Your task to perform on an android device: Show me productivity apps on the Play Store Image 0: 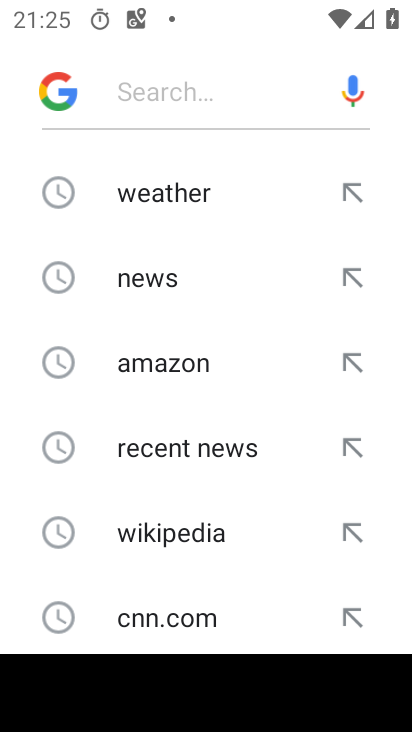
Step 0: press home button
Your task to perform on an android device: Show me productivity apps on the Play Store Image 1: 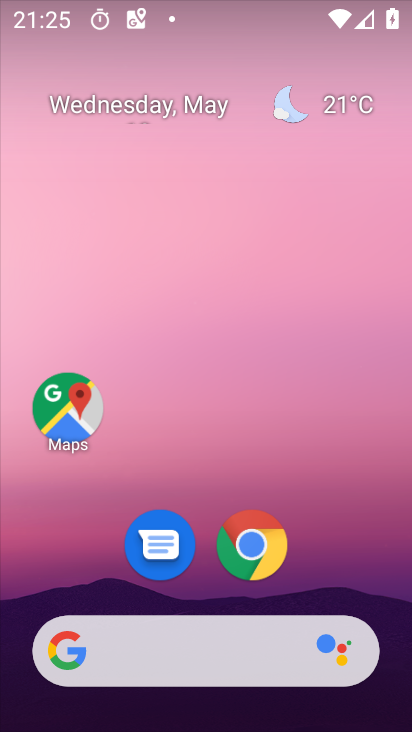
Step 1: drag from (301, 509) to (251, 4)
Your task to perform on an android device: Show me productivity apps on the Play Store Image 2: 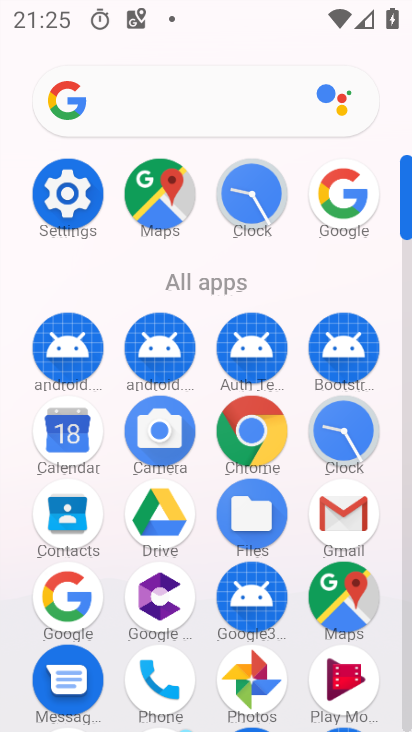
Step 2: drag from (191, 625) to (230, 252)
Your task to perform on an android device: Show me productivity apps on the Play Store Image 3: 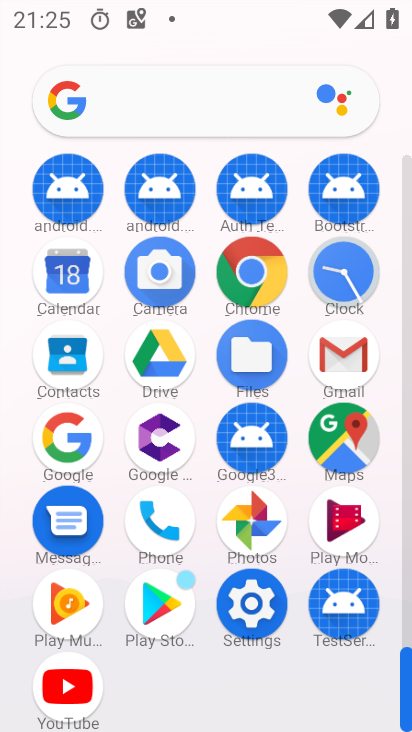
Step 3: click (171, 607)
Your task to perform on an android device: Show me productivity apps on the Play Store Image 4: 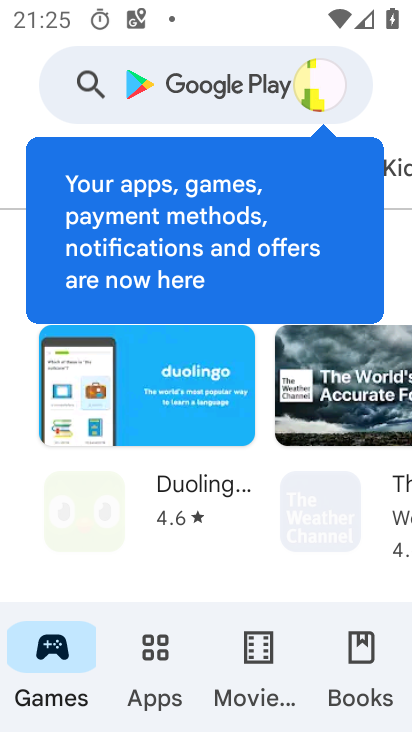
Step 4: click (158, 676)
Your task to perform on an android device: Show me productivity apps on the Play Store Image 5: 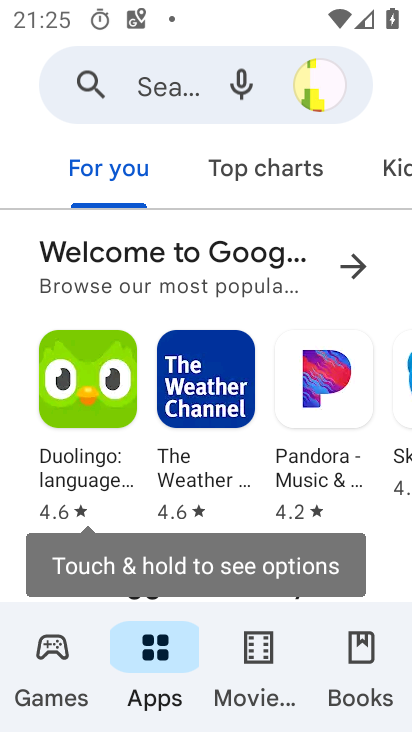
Step 5: drag from (394, 168) to (76, 183)
Your task to perform on an android device: Show me productivity apps on the Play Store Image 6: 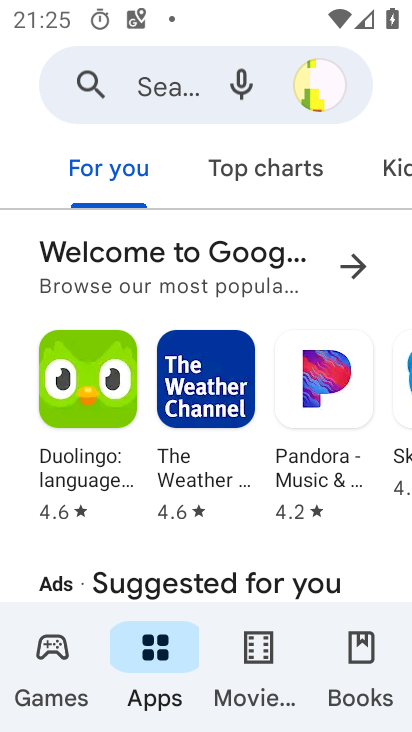
Step 6: drag from (366, 181) to (31, 209)
Your task to perform on an android device: Show me productivity apps on the Play Store Image 7: 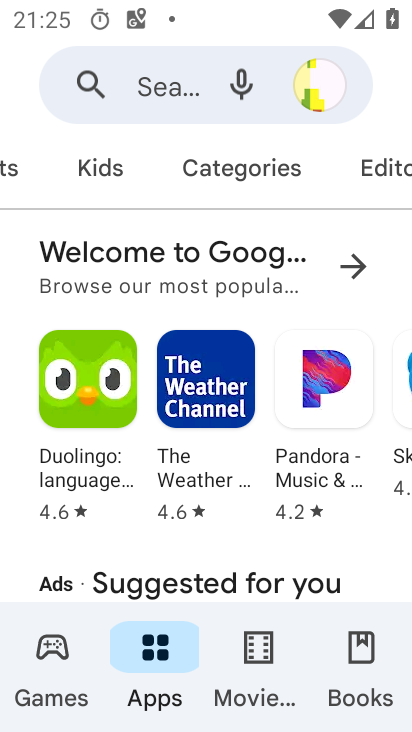
Step 7: click (230, 168)
Your task to perform on an android device: Show me productivity apps on the Play Store Image 8: 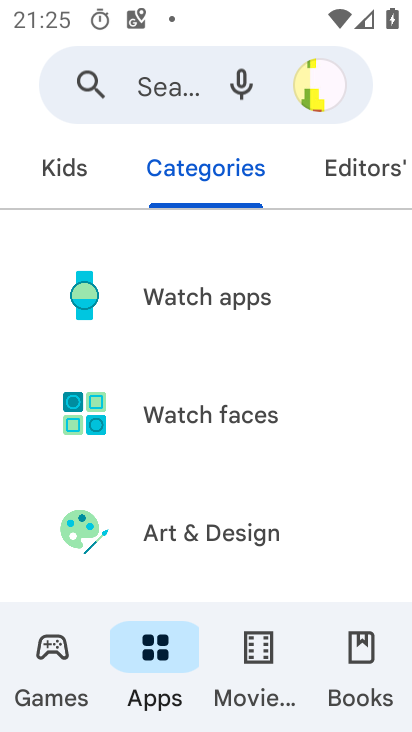
Step 8: drag from (305, 514) to (303, 233)
Your task to perform on an android device: Show me productivity apps on the Play Store Image 9: 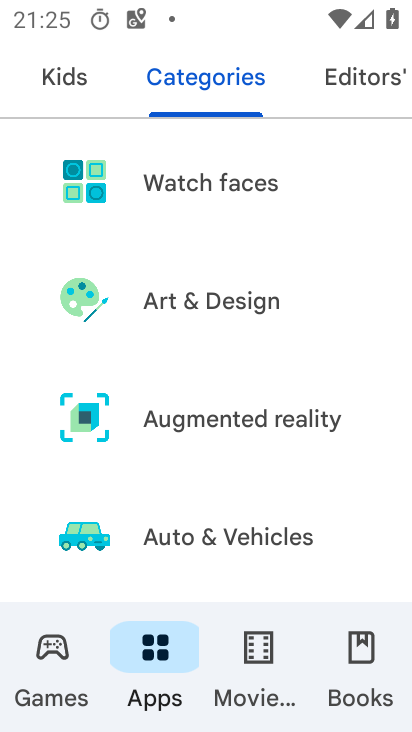
Step 9: drag from (287, 537) to (296, 247)
Your task to perform on an android device: Show me productivity apps on the Play Store Image 10: 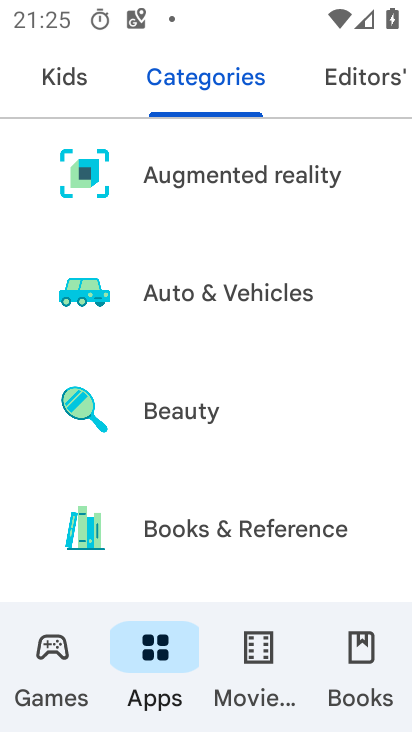
Step 10: drag from (230, 562) to (253, 267)
Your task to perform on an android device: Show me productivity apps on the Play Store Image 11: 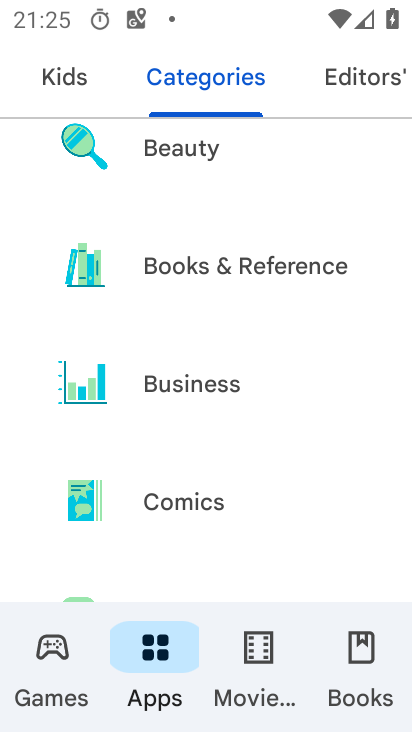
Step 11: drag from (238, 545) to (289, 269)
Your task to perform on an android device: Show me productivity apps on the Play Store Image 12: 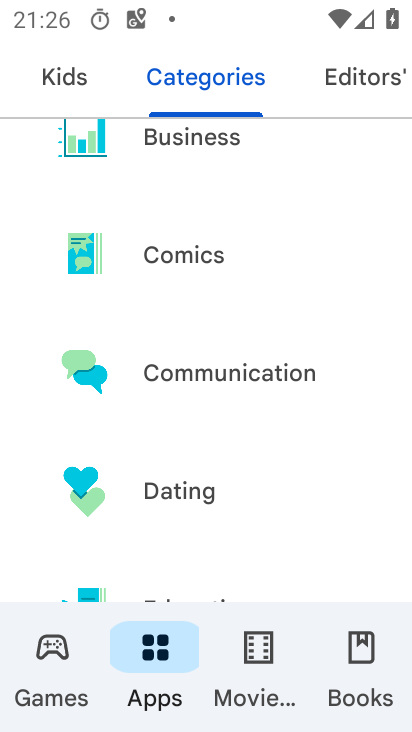
Step 12: drag from (261, 544) to (324, 224)
Your task to perform on an android device: Show me productivity apps on the Play Store Image 13: 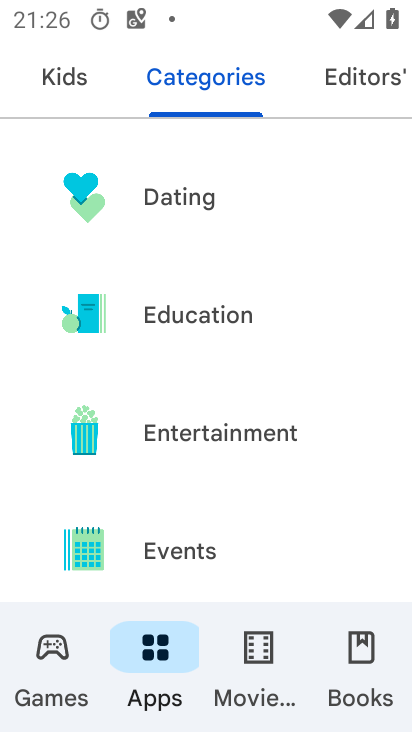
Step 13: drag from (274, 588) to (292, 362)
Your task to perform on an android device: Show me productivity apps on the Play Store Image 14: 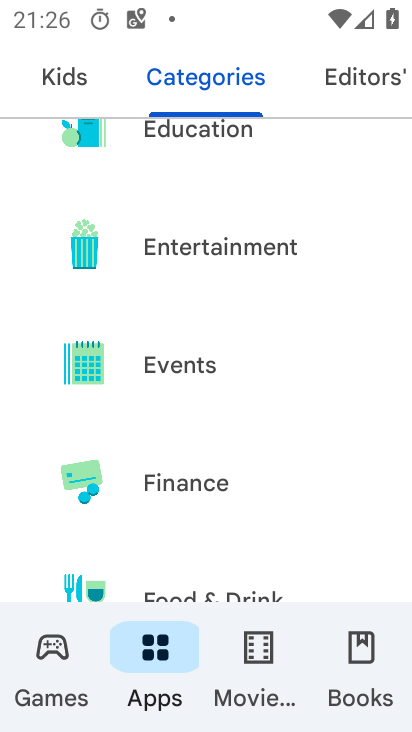
Step 14: drag from (209, 569) to (302, 294)
Your task to perform on an android device: Show me productivity apps on the Play Store Image 15: 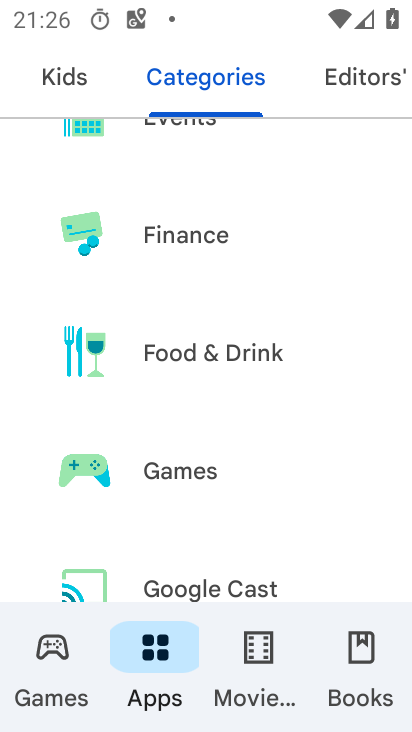
Step 15: drag from (256, 570) to (308, 281)
Your task to perform on an android device: Show me productivity apps on the Play Store Image 16: 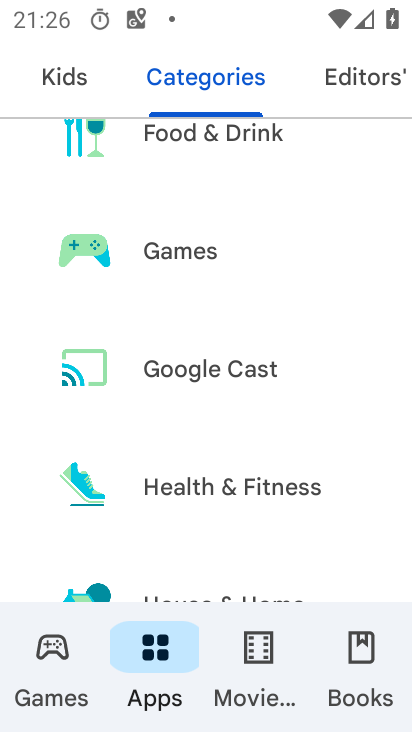
Step 16: drag from (247, 592) to (281, 347)
Your task to perform on an android device: Show me productivity apps on the Play Store Image 17: 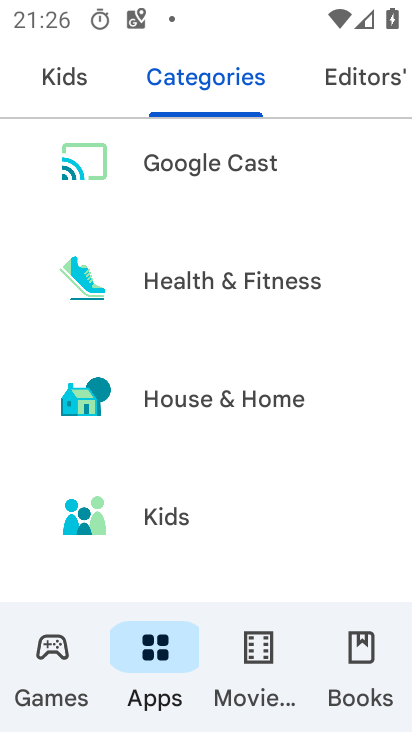
Step 17: drag from (260, 566) to (287, 338)
Your task to perform on an android device: Show me productivity apps on the Play Store Image 18: 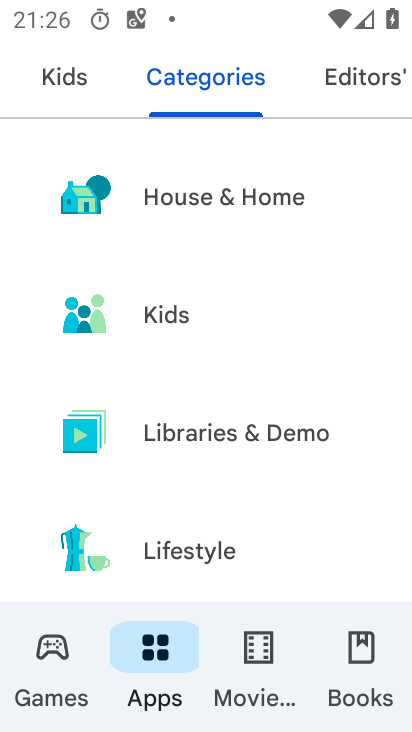
Step 18: drag from (226, 588) to (295, 390)
Your task to perform on an android device: Show me productivity apps on the Play Store Image 19: 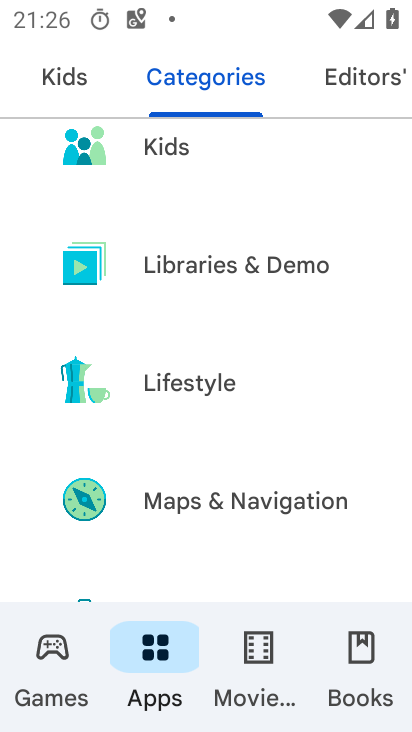
Step 19: drag from (241, 546) to (284, 354)
Your task to perform on an android device: Show me productivity apps on the Play Store Image 20: 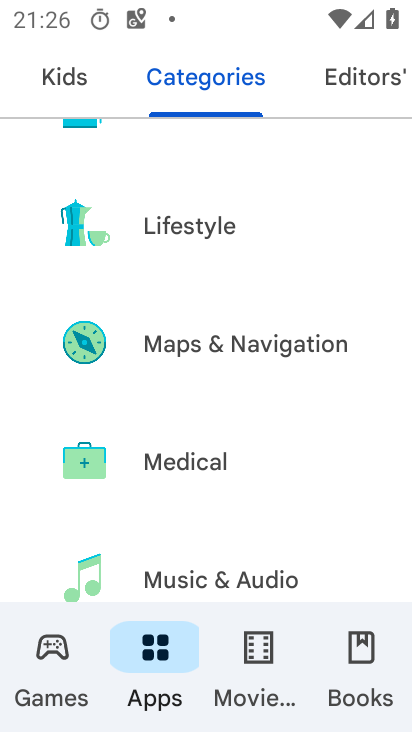
Step 20: drag from (261, 566) to (274, 413)
Your task to perform on an android device: Show me productivity apps on the Play Store Image 21: 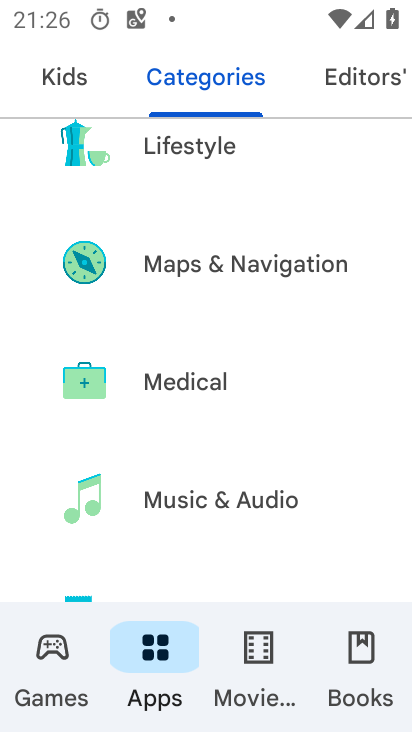
Step 21: drag from (253, 571) to (296, 388)
Your task to perform on an android device: Show me productivity apps on the Play Store Image 22: 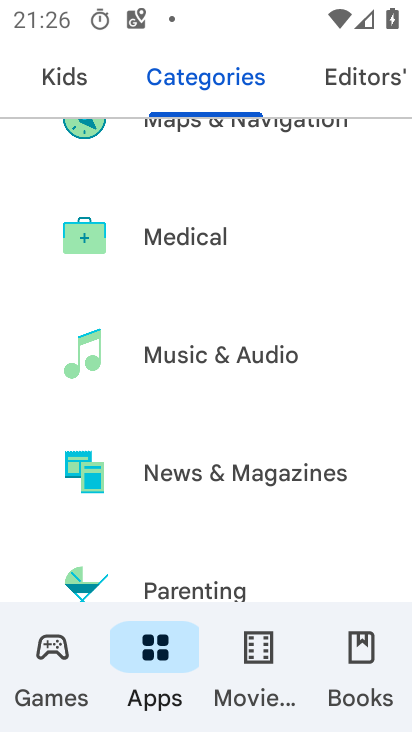
Step 22: drag from (227, 577) to (298, 410)
Your task to perform on an android device: Show me productivity apps on the Play Store Image 23: 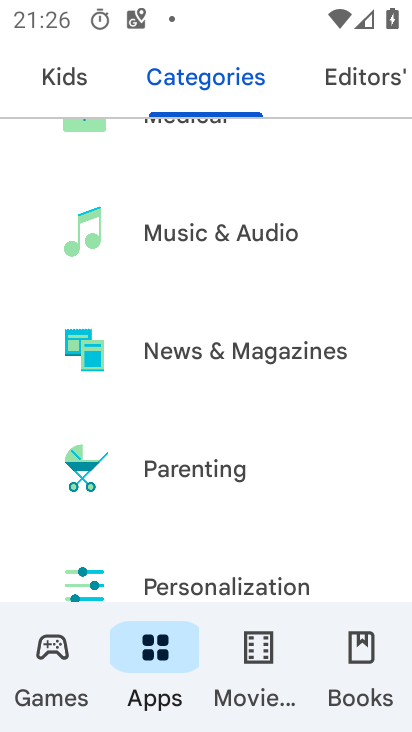
Step 23: drag from (263, 578) to (283, 430)
Your task to perform on an android device: Show me productivity apps on the Play Store Image 24: 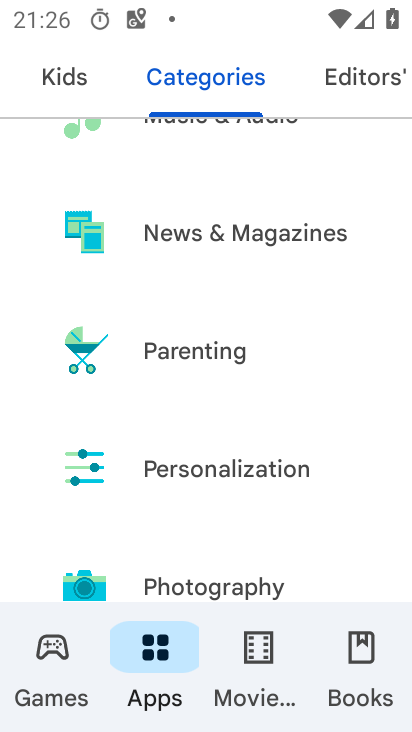
Step 24: drag from (270, 585) to (306, 435)
Your task to perform on an android device: Show me productivity apps on the Play Store Image 25: 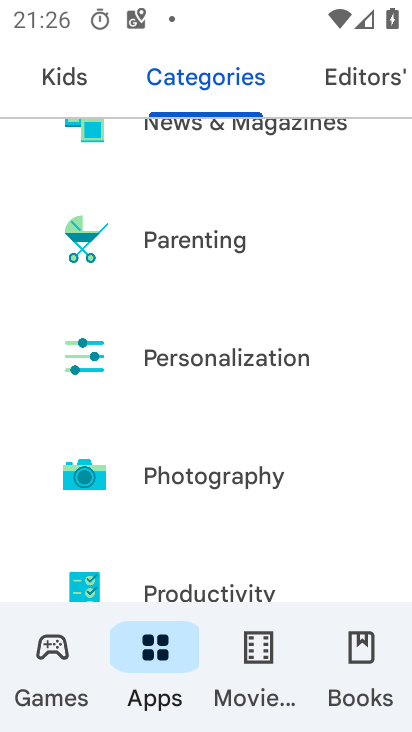
Step 25: click (260, 591)
Your task to perform on an android device: Show me productivity apps on the Play Store Image 26: 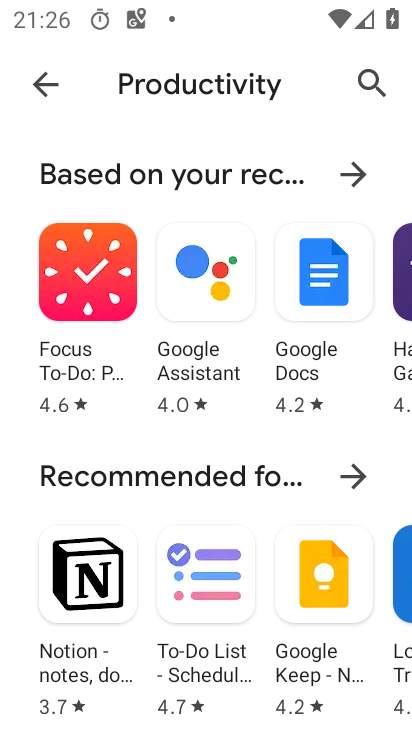
Step 26: task complete